Your task to perform on an android device: check google app version Image 0: 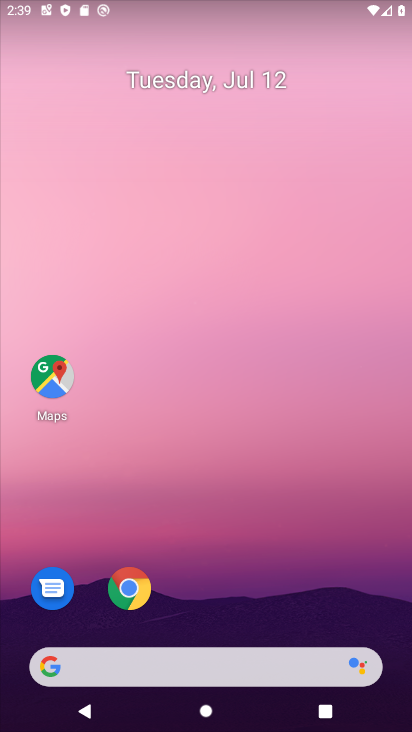
Step 0: drag from (216, 665) to (175, 176)
Your task to perform on an android device: check google app version Image 1: 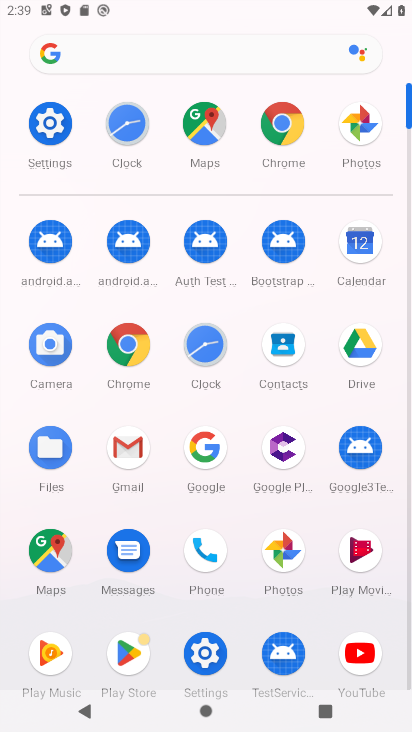
Step 1: click (213, 458)
Your task to perform on an android device: check google app version Image 2: 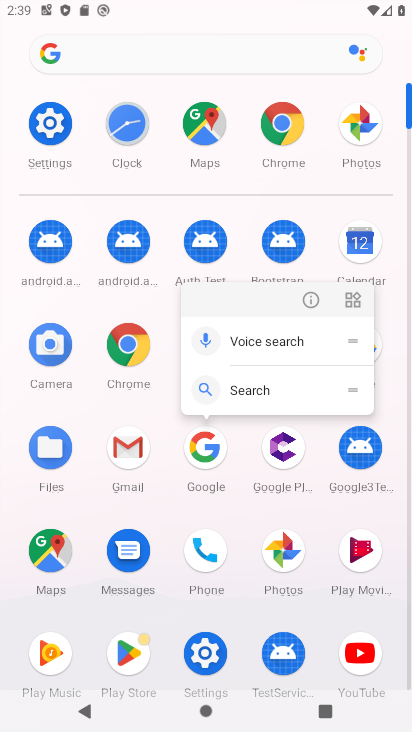
Step 2: click (314, 305)
Your task to perform on an android device: check google app version Image 3: 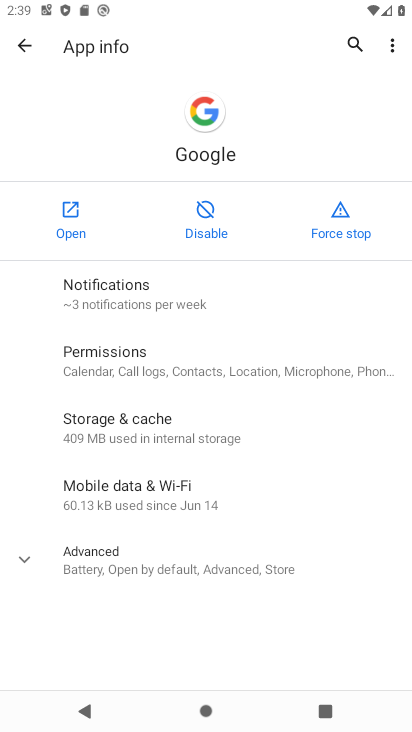
Step 3: click (106, 563)
Your task to perform on an android device: check google app version Image 4: 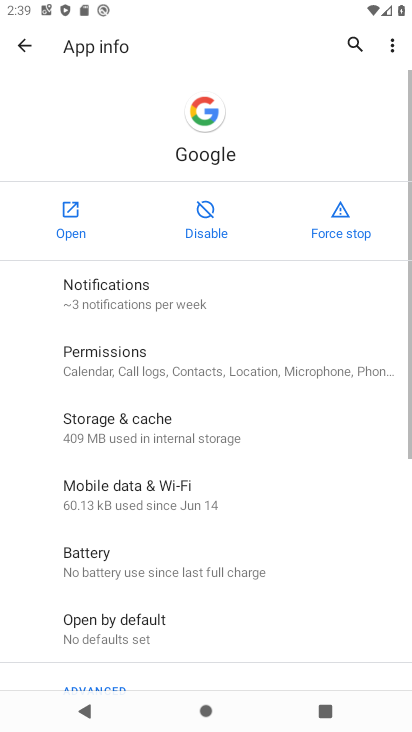
Step 4: task complete